Your task to perform on an android device: Go to Reddit.com Image 0: 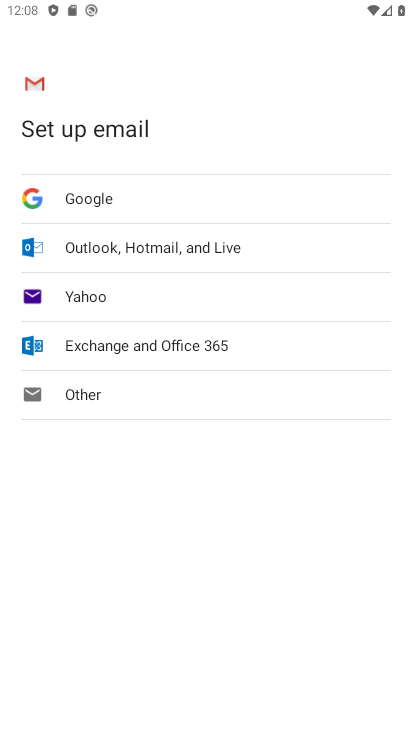
Step 0: press home button
Your task to perform on an android device: Go to Reddit.com Image 1: 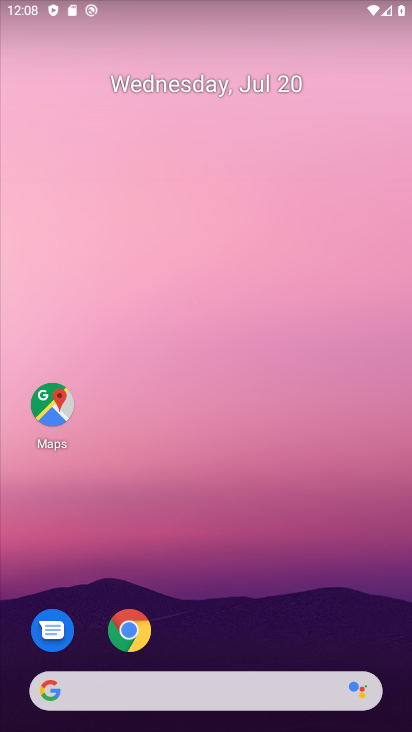
Step 1: click (127, 625)
Your task to perform on an android device: Go to Reddit.com Image 2: 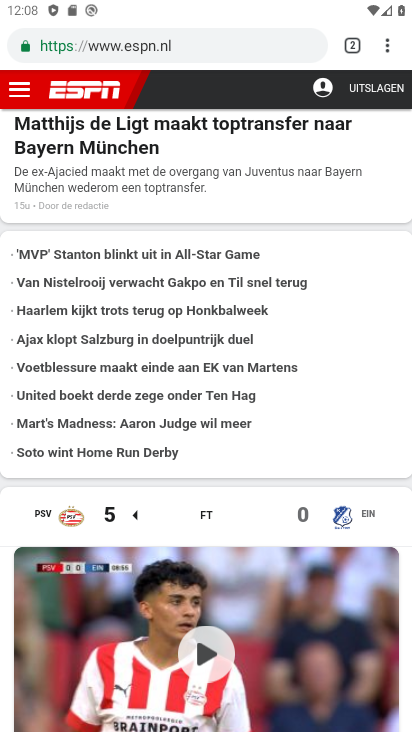
Step 2: click (391, 47)
Your task to perform on an android device: Go to Reddit.com Image 3: 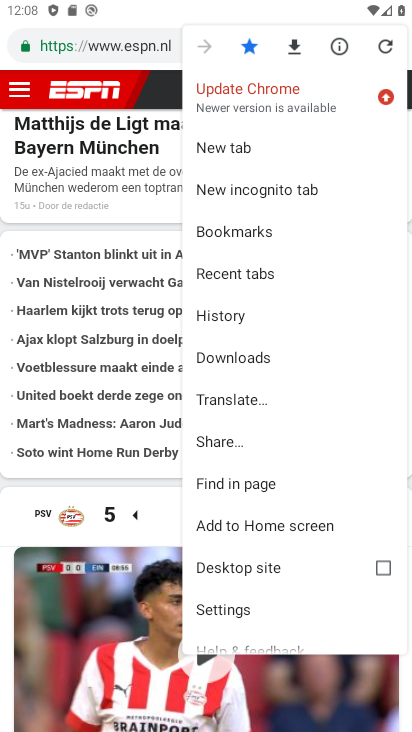
Step 3: click (239, 137)
Your task to perform on an android device: Go to Reddit.com Image 4: 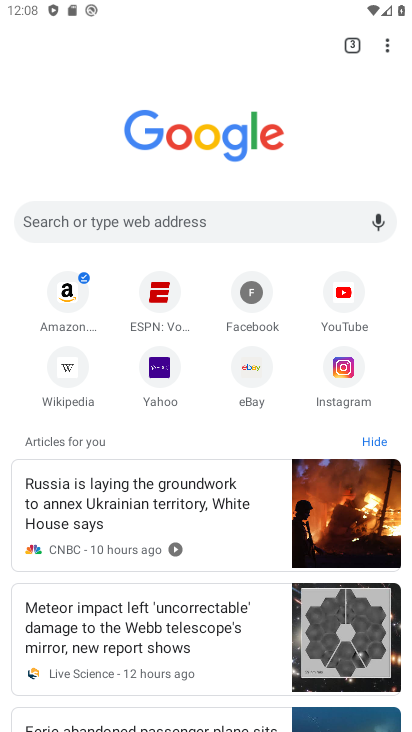
Step 4: click (162, 215)
Your task to perform on an android device: Go to Reddit.com Image 5: 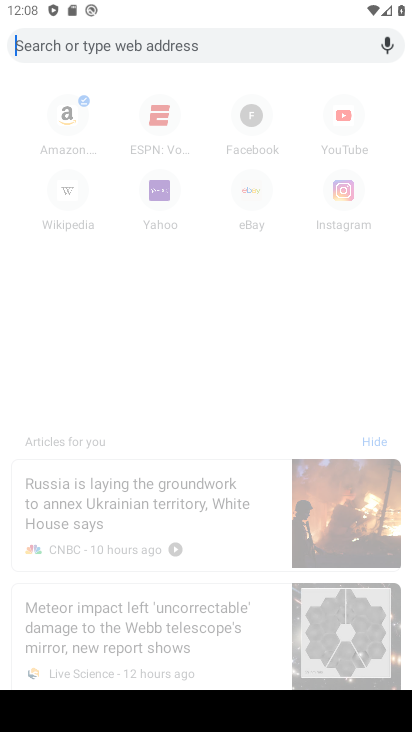
Step 5: type "reddit.com"
Your task to perform on an android device: Go to Reddit.com Image 6: 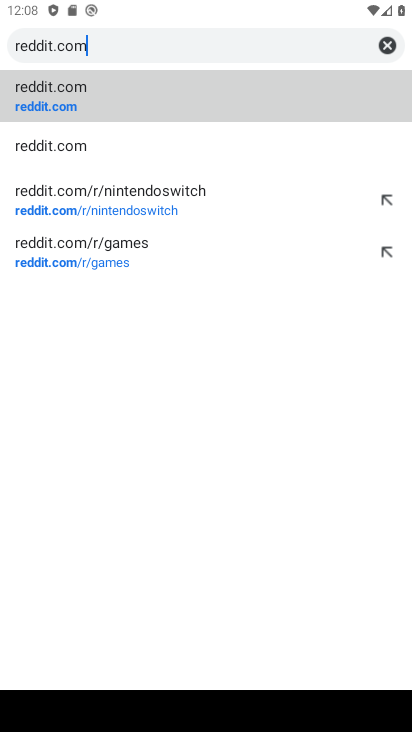
Step 6: click (51, 85)
Your task to perform on an android device: Go to Reddit.com Image 7: 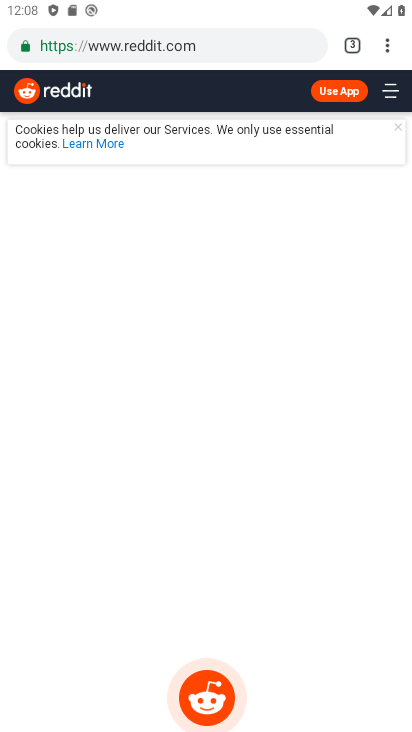
Step 7: task complete